Your task to perform on an android device: Open internet settings Image 0: 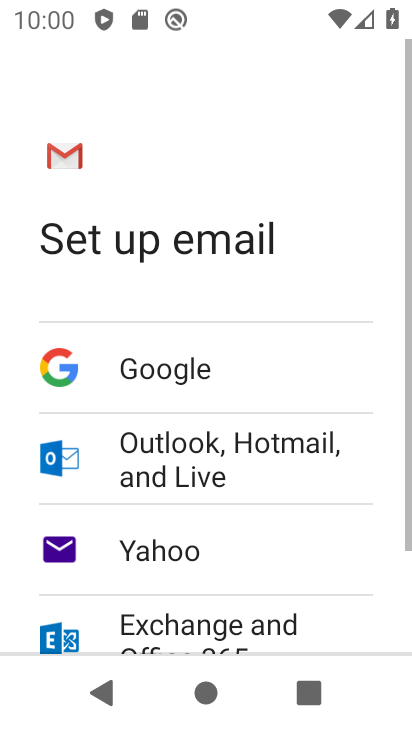
Step 0: press back button
Your task to perform on an android device: Open internet settings Image 1: 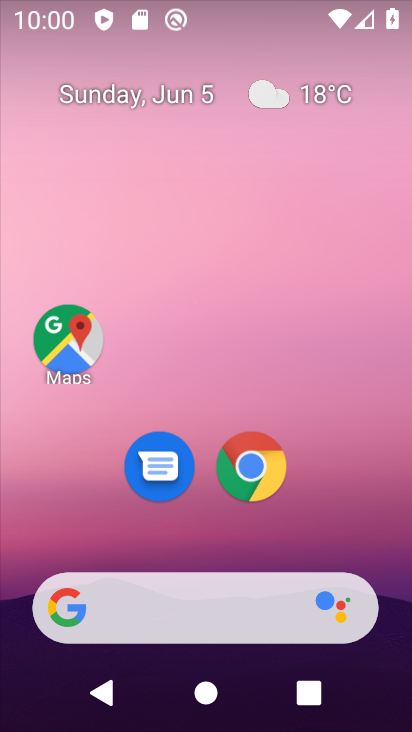
Step 1: drag from (338, 491) to (253, 94)
Your task to perform on an android device: Open internet settings Image 2: 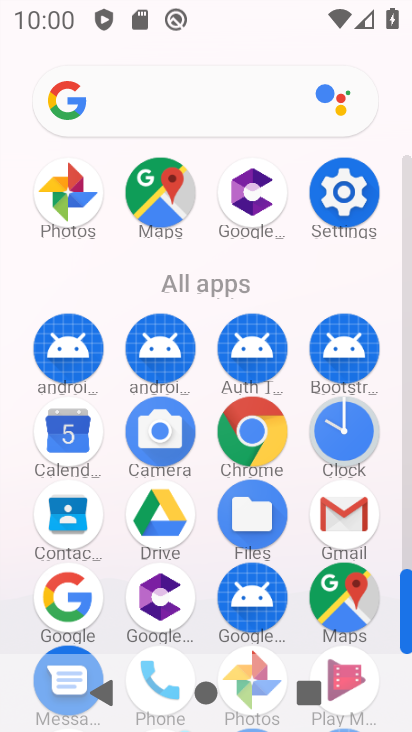
Step 2: click (344, 193)
Your task to perform on an android device: Open internet settings Image 3: 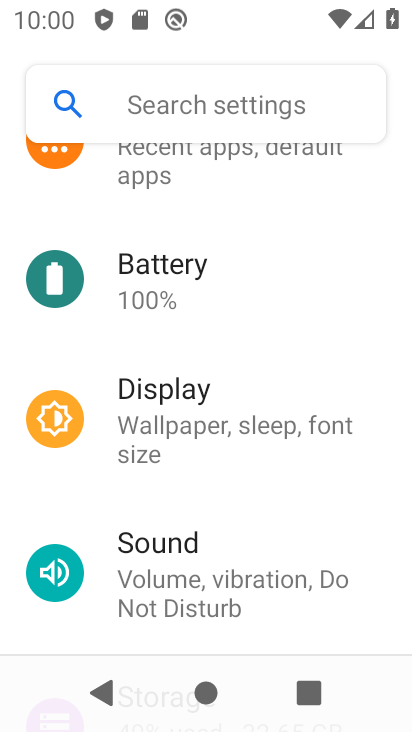
Step 3: drag from (249, 271) to (249, 396)
Your task to perform on an android device: Open internet settings Image 4: 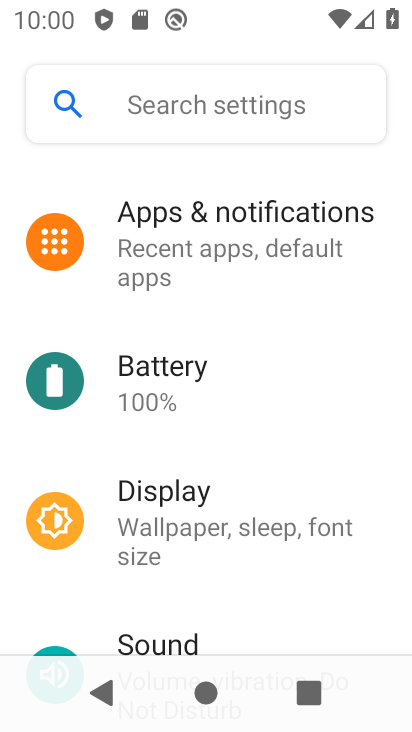
Step 4: drag from (227, 305) to (220, 468)
Your task to perform on an android device: Open internet settings Image 5: 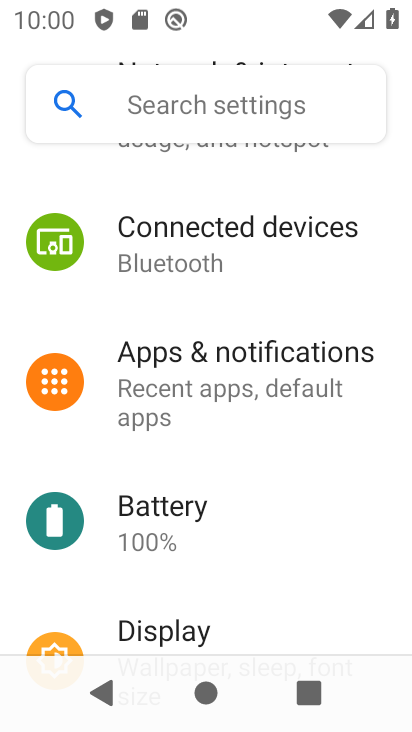
Step 5: drag from (257, 288) to (265, 460)
Your task to perform on an android device: Open internet settings Image 6: 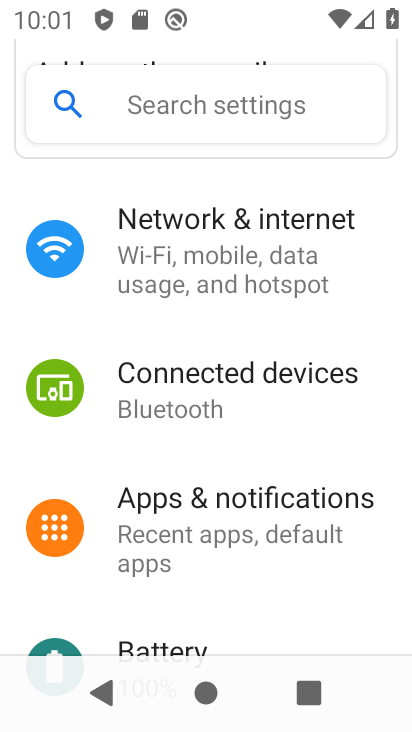
Step 6: click (250, 218)
Your task to perform on an android device: Open internet settings Image 7: 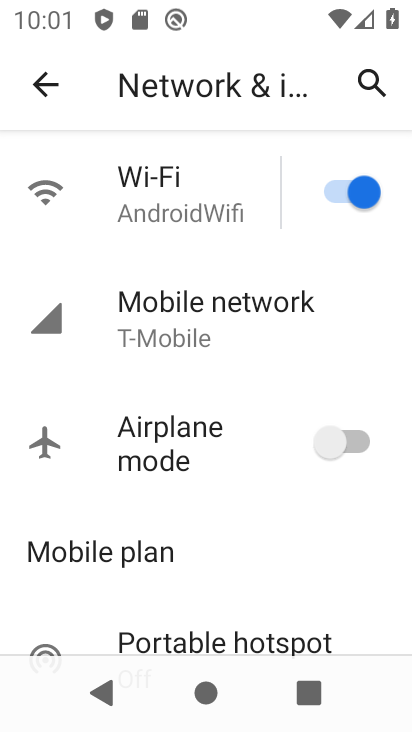
Step 7: click (202, 220)
Your task to perform on an android device: Open internet settings Image 8: 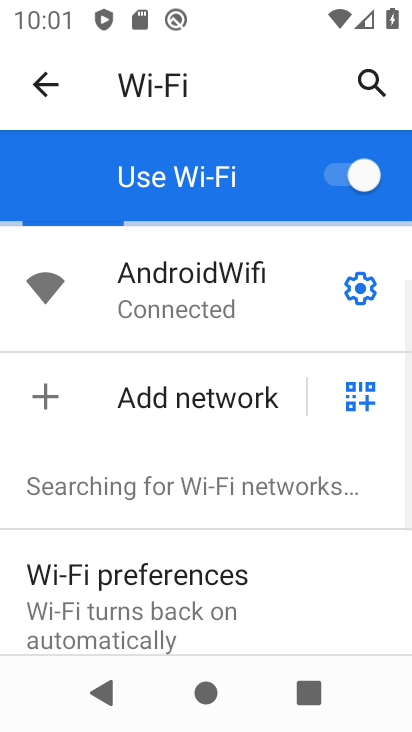
Step 8: task complete